Your task to perform on an android device: check data usage Image 0: 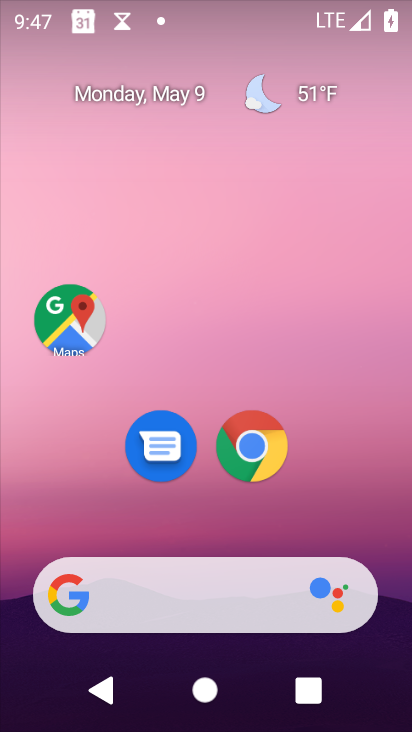
Step 0: drag from (275, 491) to (272, 178)
Your task to perform on an android device: check data usage Image 1: 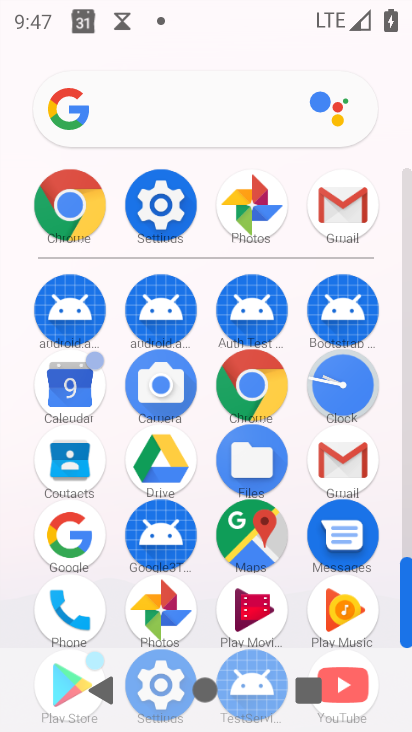
Step 1: click (158, 214)
Your task to perform on an android device: check data usage Image 2: 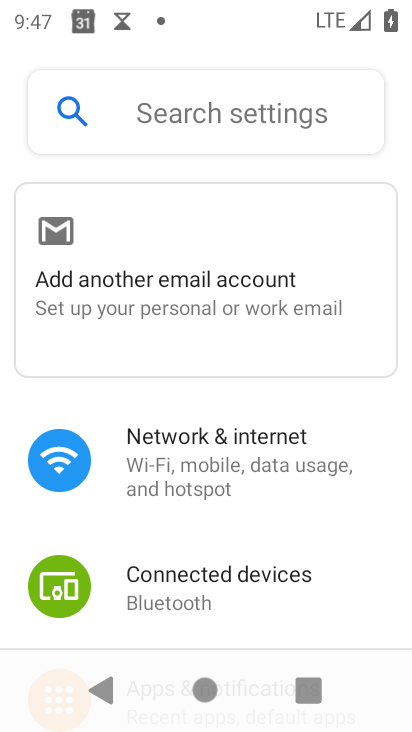
Step 2: click (235, 479)
Your task to perform on an android device: check data usage Image 3: 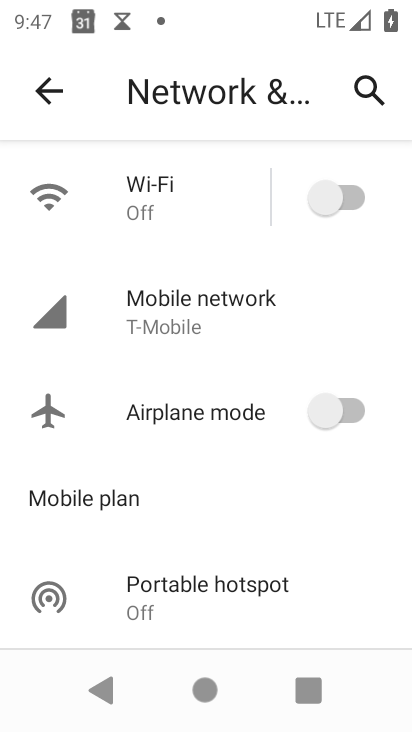
Step 3: click (206, 324)
Your task to perform on an android device: check data usage Image 4: 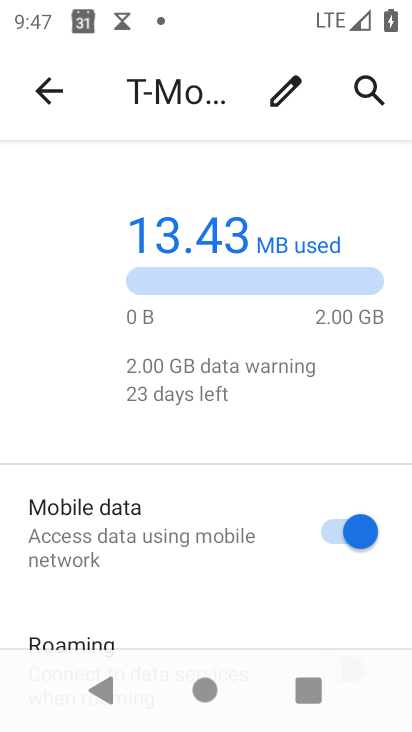
Step 4: drag from (195, 514) to (212, 261)
Your task to perform on an android device: check data usage Image 5: 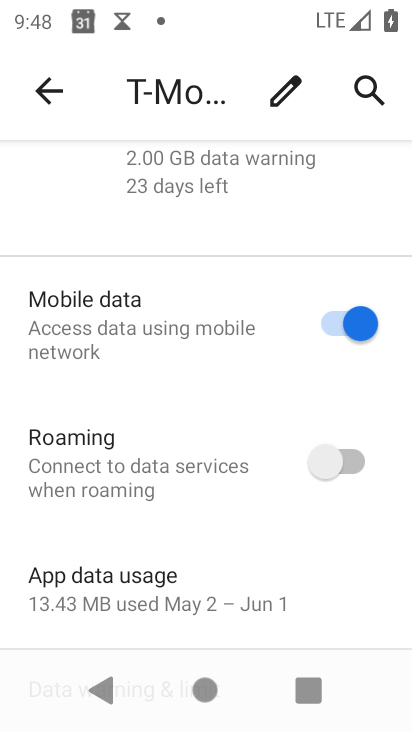
Step 5: click (160, 588)
Your task to perform on an android device: check data usage Image 6: 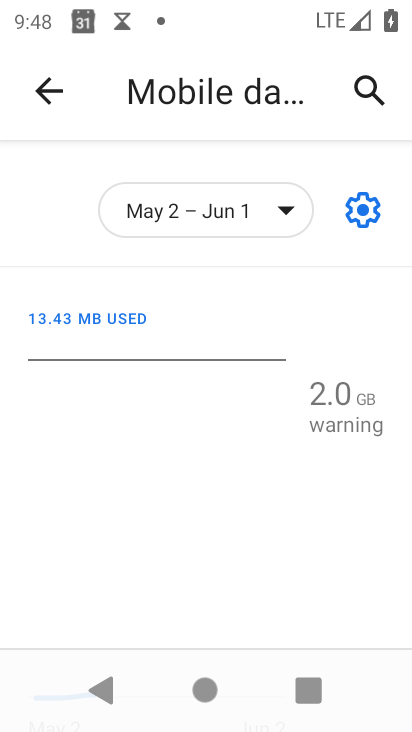
Step 6: task complete